Your task to perform on an android device: change your default location settings in chrome Image 0: 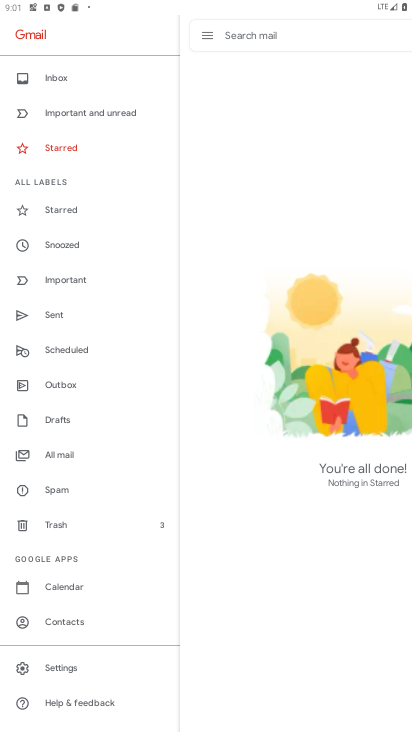
Step 0: press home button
Your task to perform on an android device: change your default location settings in chrome Image 1: 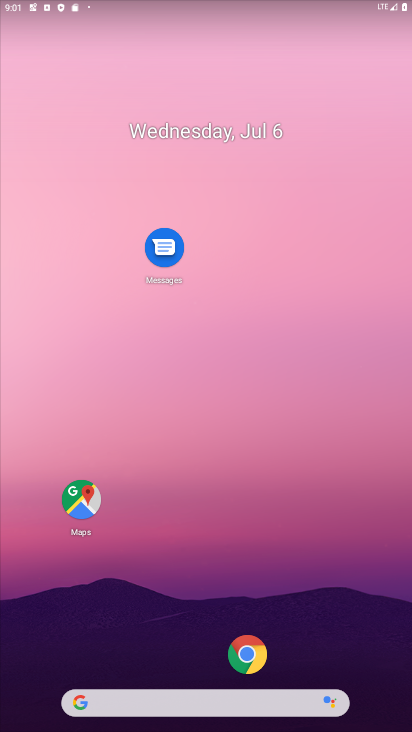
Step 1: click (249, 663)
Your task to perform on an android device: change your default location settings in chrome Image 2: 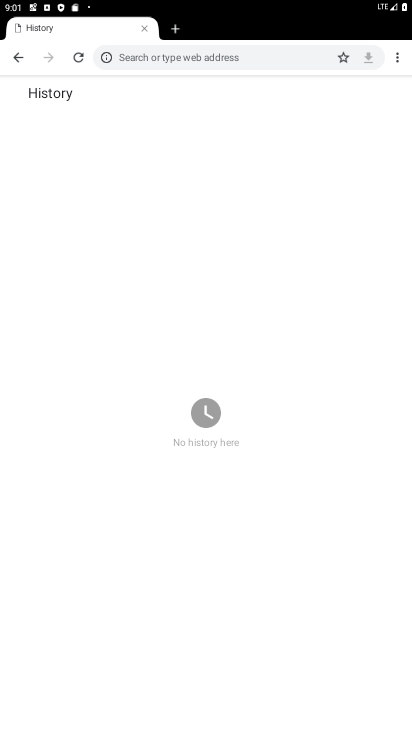
Step 2: click (400, 56)
Your task to perform on an android device: change your default location settings in chrome Image 3: 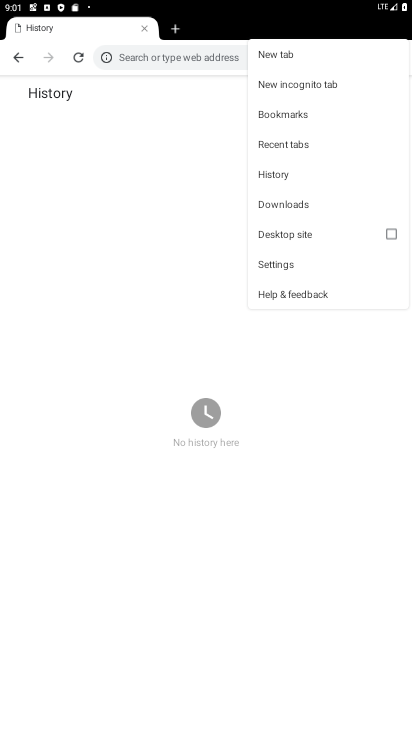
Step 3: click (288, 267)
Your task to perform on an android device: change your default location settings in chrome Image 4: 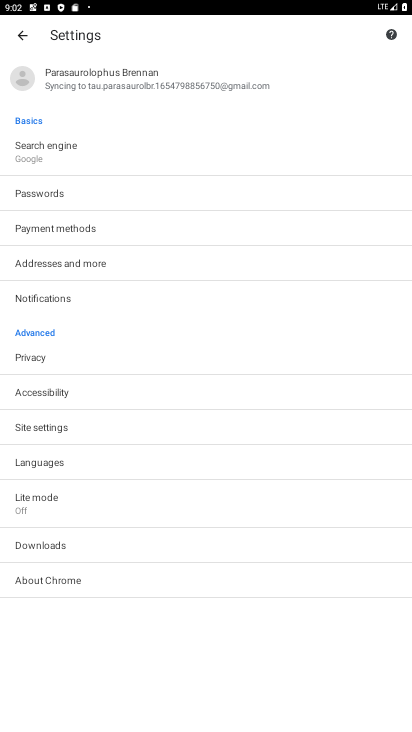
Step 4: click (61, 427)
Your task to perform on an android device: change your default location settings in chrome Image 5: 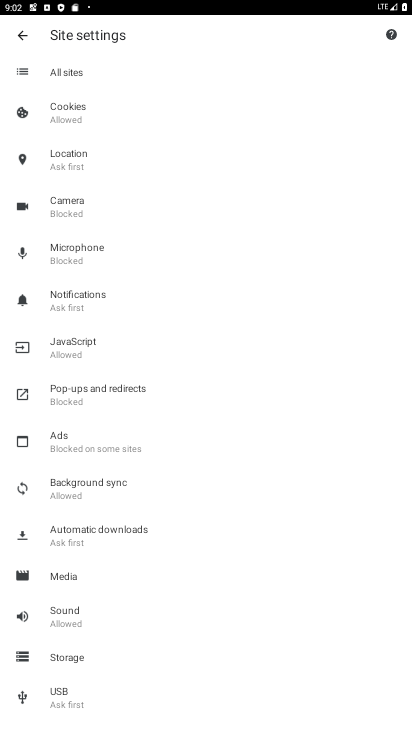
Step 5: click (99, 162)
Your task to perform on an android device: change your default location settings in chrome Image 6: 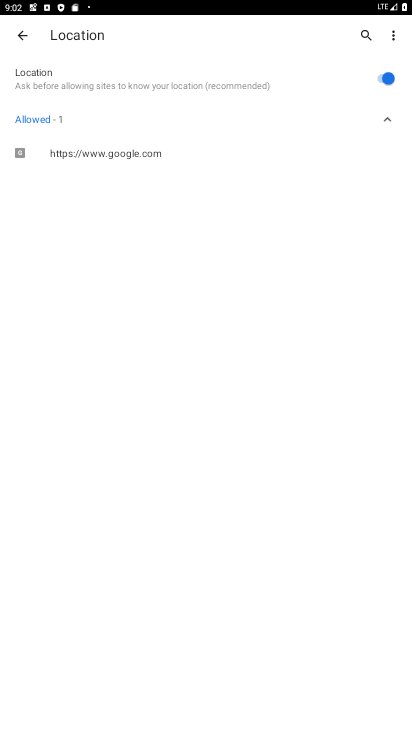
Step 6: click (384, 73)
Your task to perform on an android device: change your default location settings in chrome Image 7: 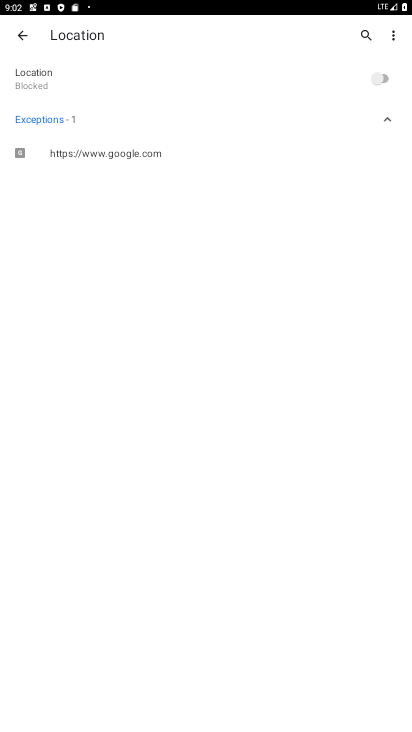
Step 7: task complete